Your task to perform on an android device: Open Amazon Image 0: 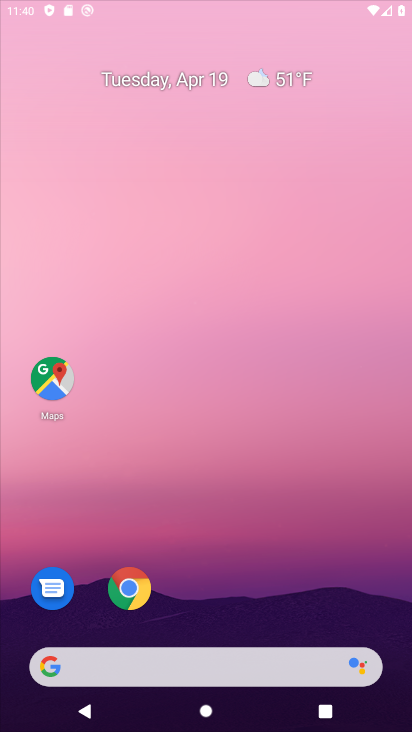
Step 0: click (132, 584)
Your task to perform on an android device: Open Amazon Image 1: 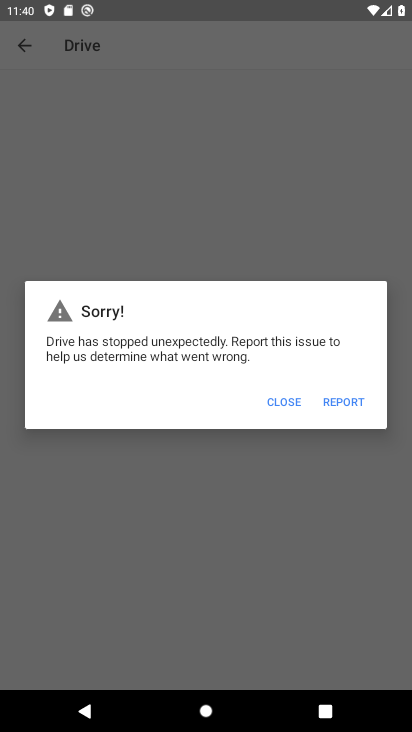
Step 1: press home button
Your task to perform on an android device: Open Amazon Image 2: 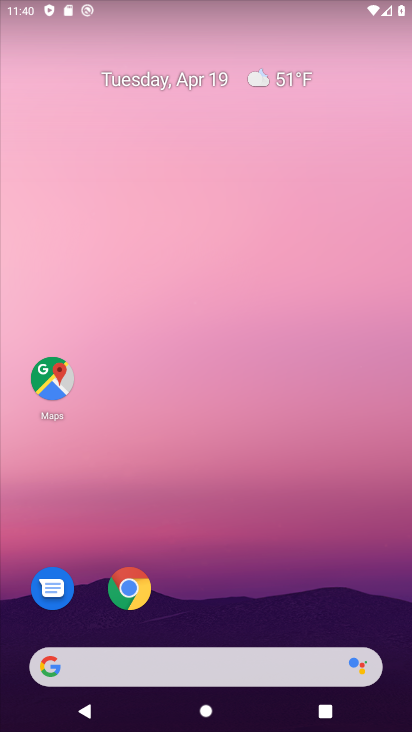
Step 2: click (127, 578)
Your task to perform on an android device: Open Amazon Image 3: 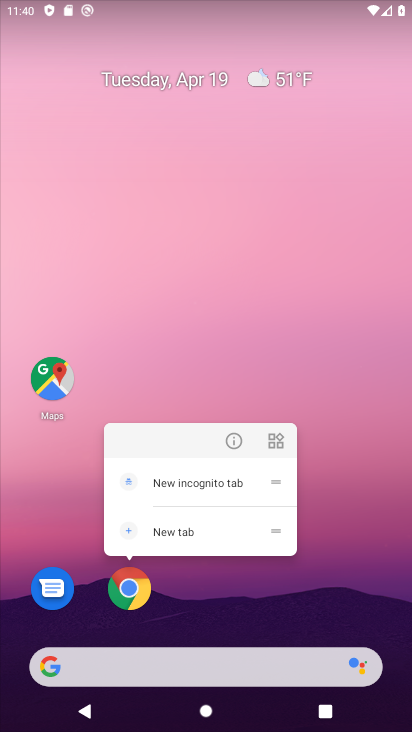
Step 3: click (129, 590)
Your task to perform on an android device: Open Amazon Image 4: 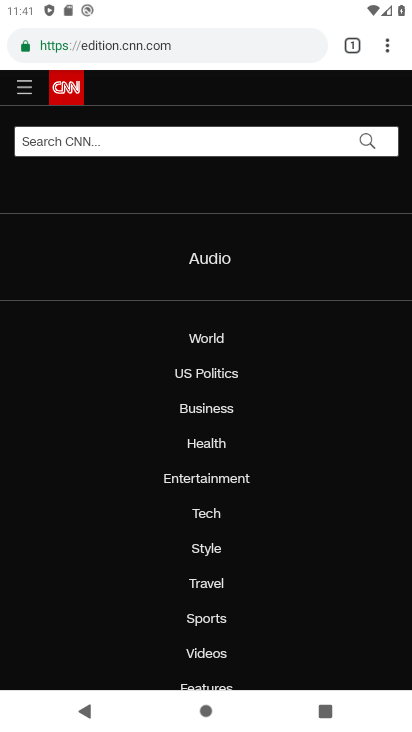
Step 4: click (357, 38)
Your task to perform on an android device: Open Amazon Image 5: 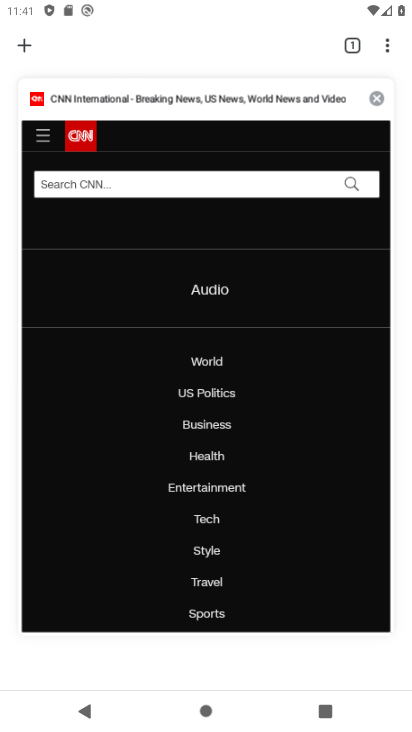
Step 5: click (20, 44)
Your task to perform on an android device: Open Amazon Image 6: 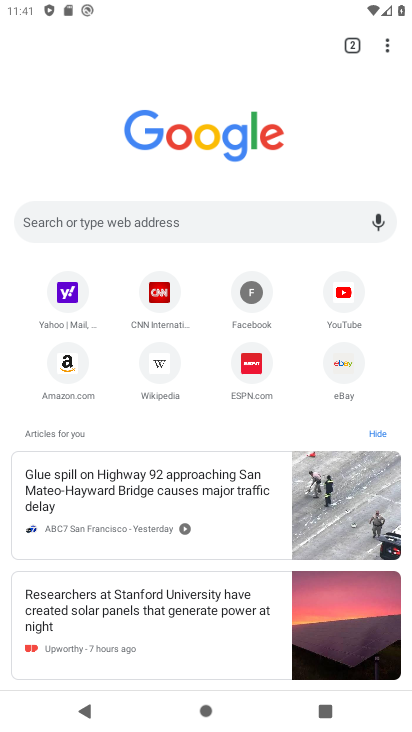
Step 6: click (64, 364)
Your task to perform on an android device: Open Amazon Image 7: 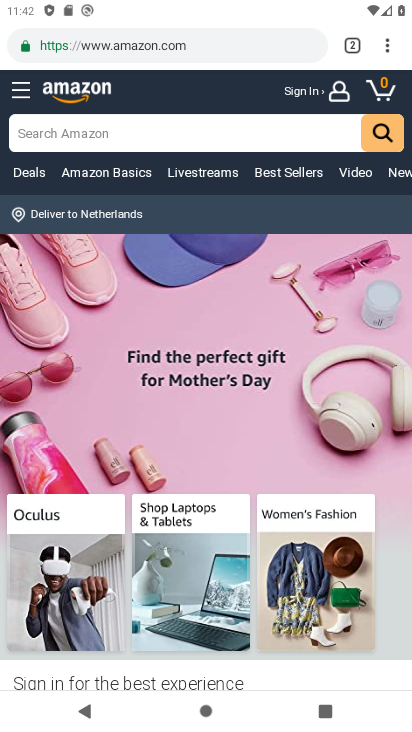
Step 7: task complete